Your task to perform on an android device: add a contact Image 0: 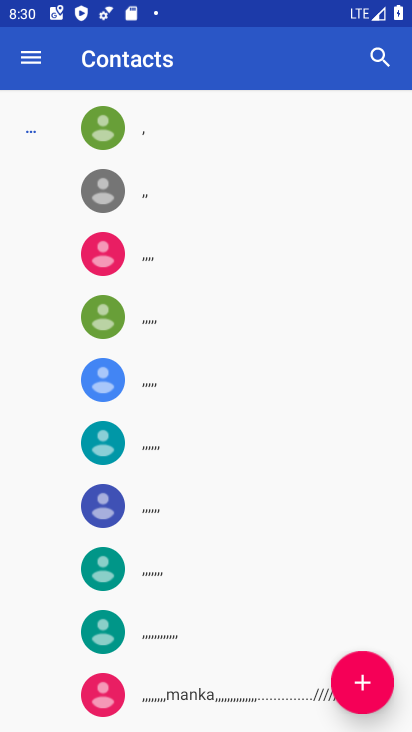
Step 0: click (370, 678)
Your task to perform on an android device: add a contact Image 1: 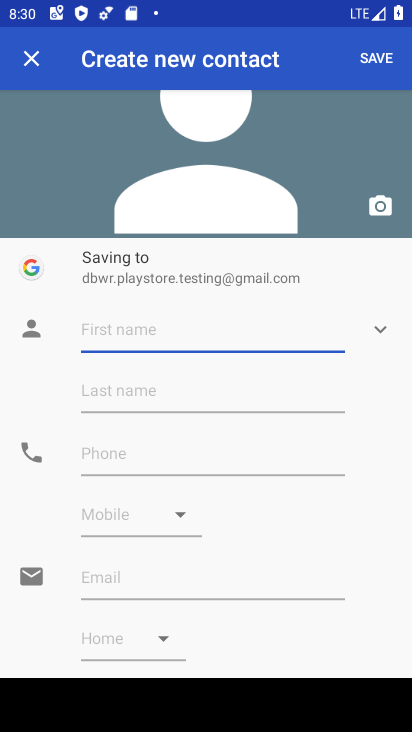
Step 1: click (114, 331)
Your task to perform on an android device: add a contact Image 2: 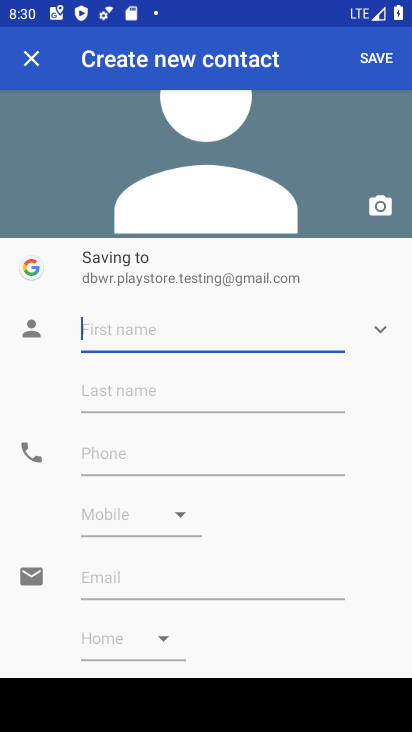
Step 2: type "vfbfb"
Your task to perform on an android device: add a contact Image 3: 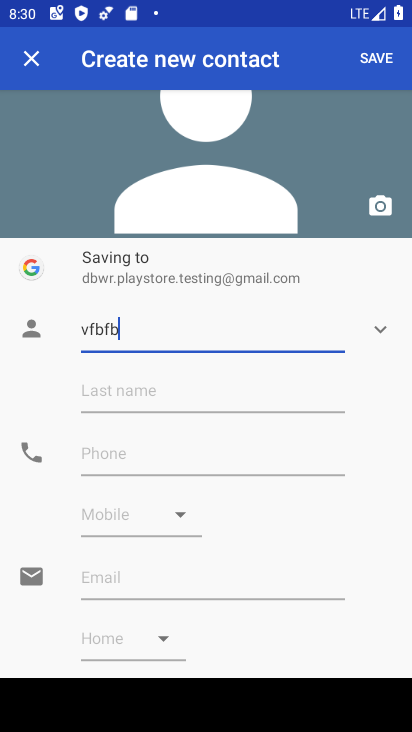
Step 3: click (106, 449)
Your task to perform on an android device: add a contact Image 4: 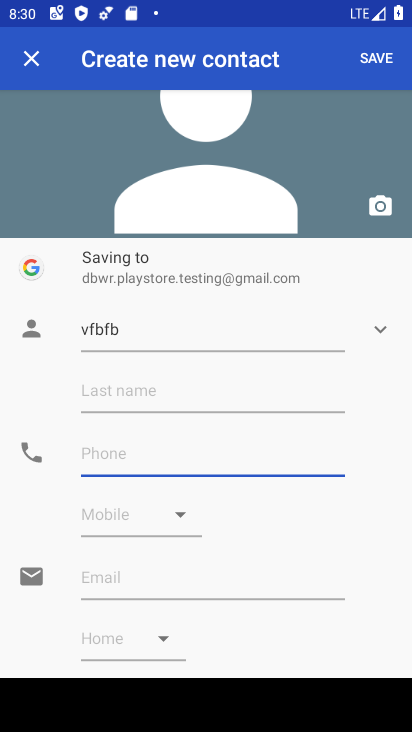
Step 4: type "76776"
Your task to perform on an android device: add a contact Image 5: 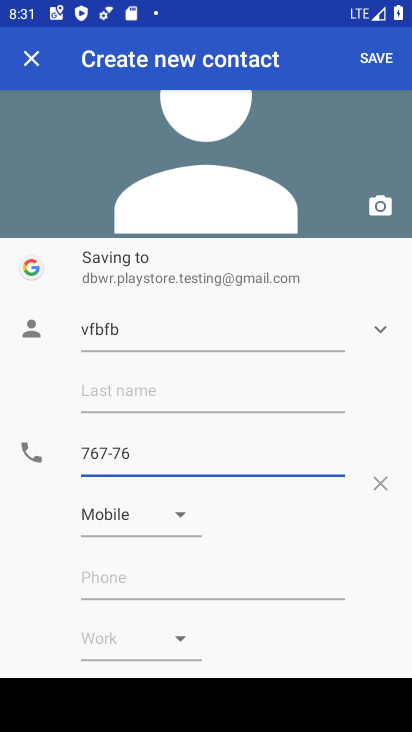
Step 5: click (370, 55)
Your task to perform on an android device: add a contact Image 6: 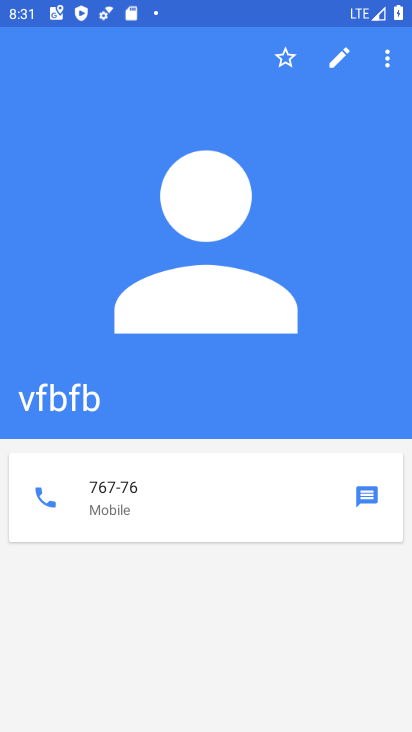
Step 6: task complete